Your task to perform on an android device: Open accessibility settings Image 0: 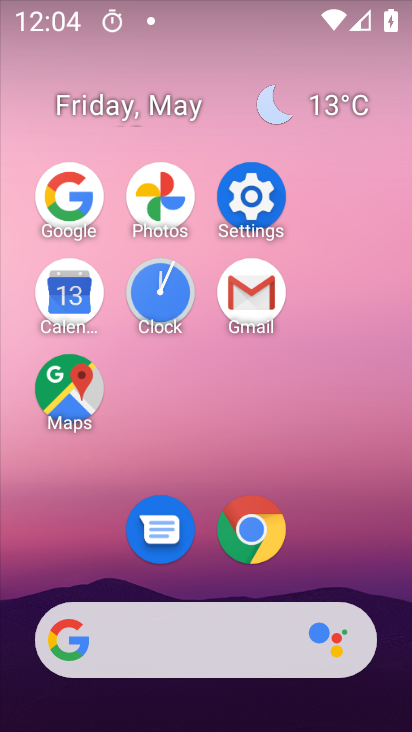
Step 0: click (264, 195)
Your task to perform on an android device: Open accessibility settings Image 1: 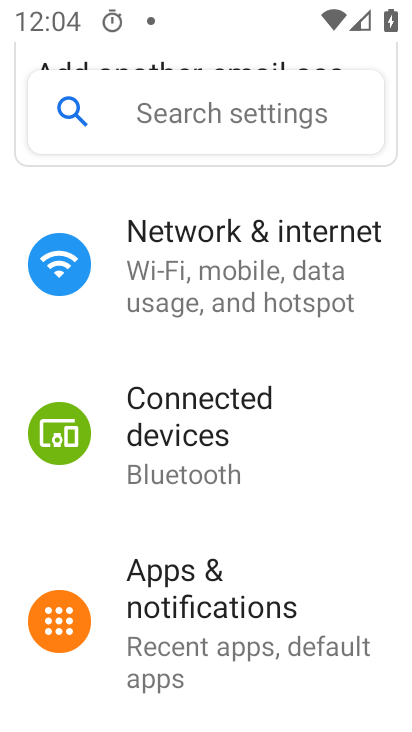
Step 1: drag from (318, 609) to (360, 106)
Your task to perform on an android device: Open accessibility settings Image 2: 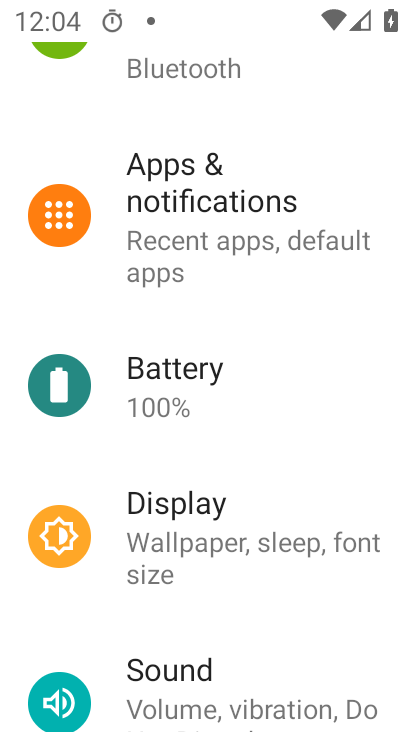
Step 2: drag from (313, 633) to (333, 92)
Your task to perform on an android device: Open accessibility settings Image 3: 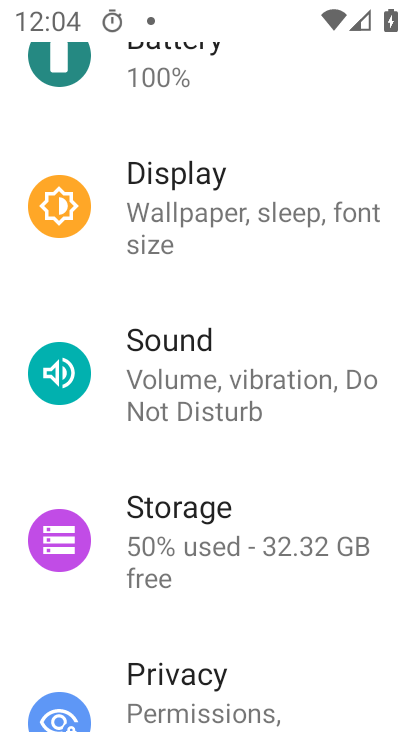
Step 3: drag from (264, 575) to (260, 88)
Your task to perform on an android device: Open accessibility settings Image 4: 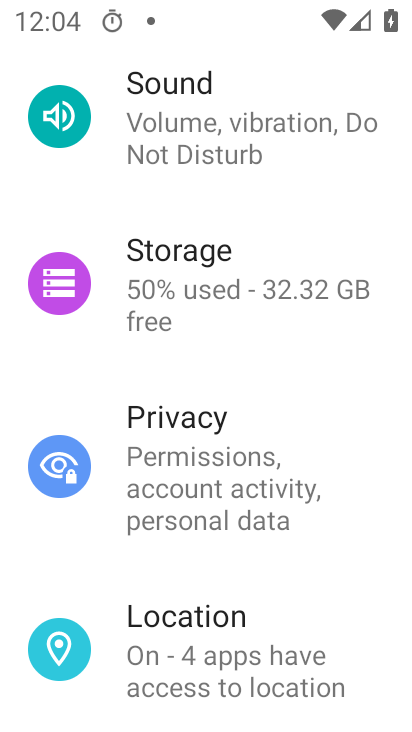
Step 4: drag from (310, 579) to (307, 83)
Your task to perform on an android device: Open accessibility settings Image 5: 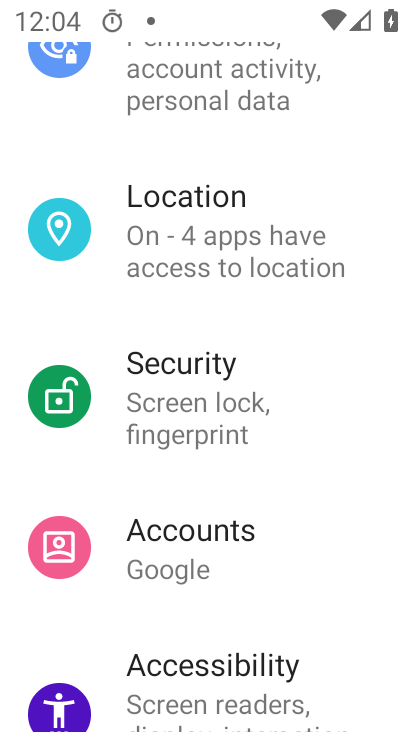
Step 5: click (269, 664)
Your task to perform on an android device: Open accessibility settings Image 6: 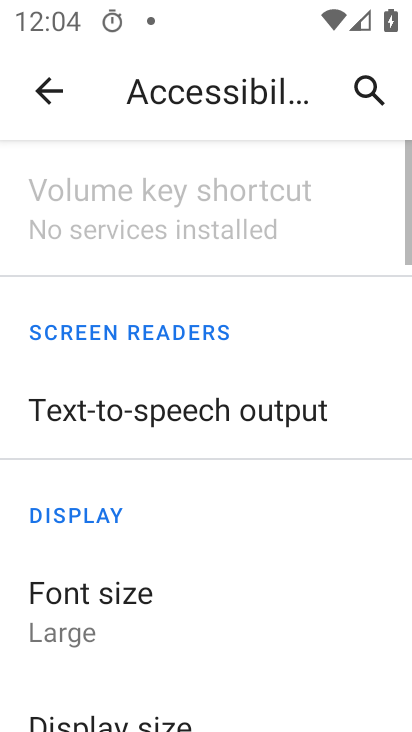
Step 6: task complete